Your task to perform on an android device: add a contact in the contacts app Image 0: 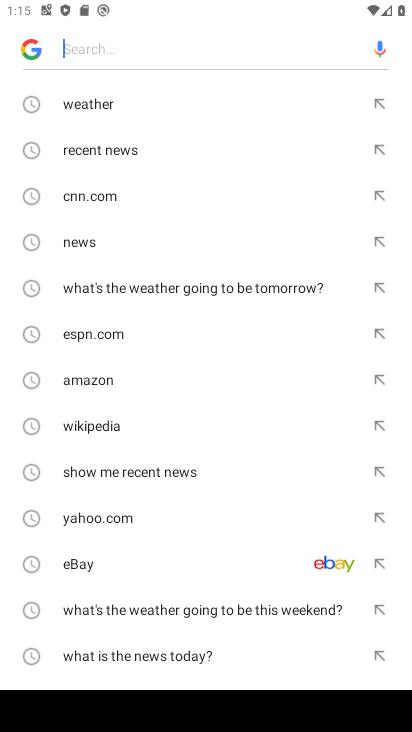
Step 0: drag from (234, 562) to (150, 207)
Your task to perform on an android device: add a contact in the contacts app Image 1: 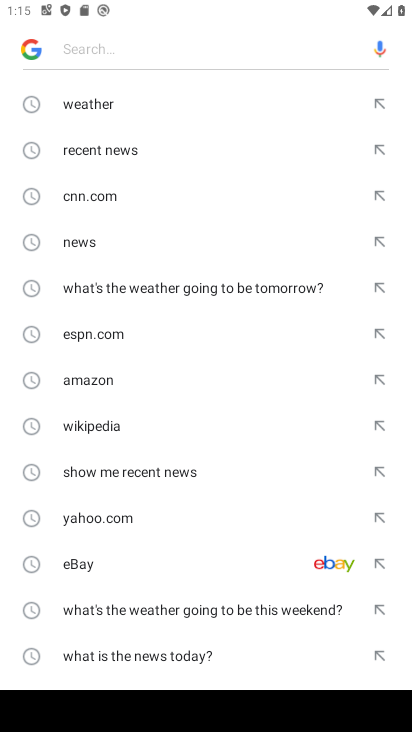
Step 1: press back button
Your task to perform on an android device: add a contact in the contacts app Image 2: 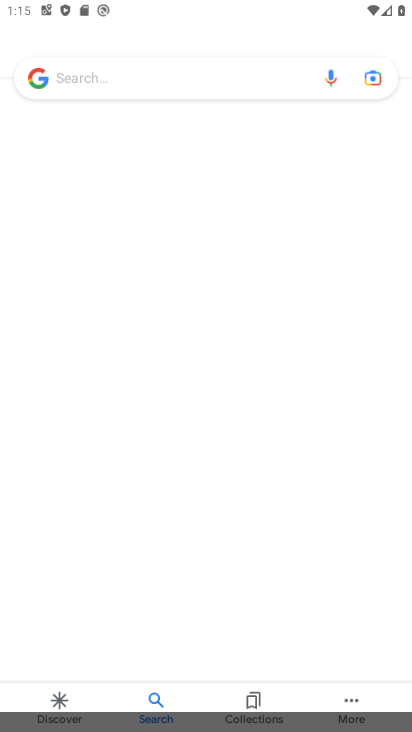
Step 2: press back button
Your task to perform on an android device: add a contact in the contacts app Image 3: 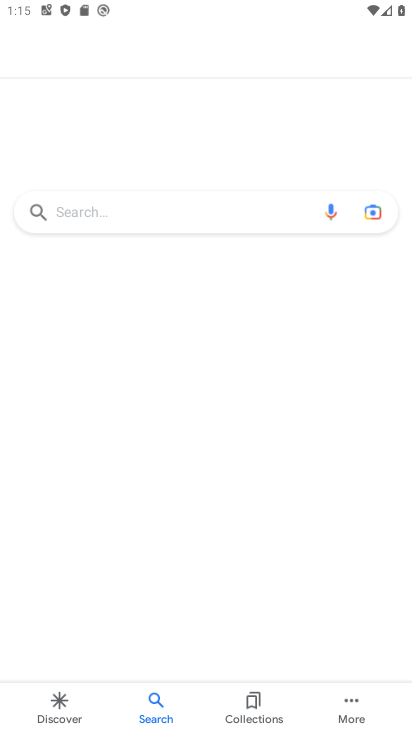
Step 3: press back button
Your task to perform on an android device: add a contact in the contacts app Image 4: 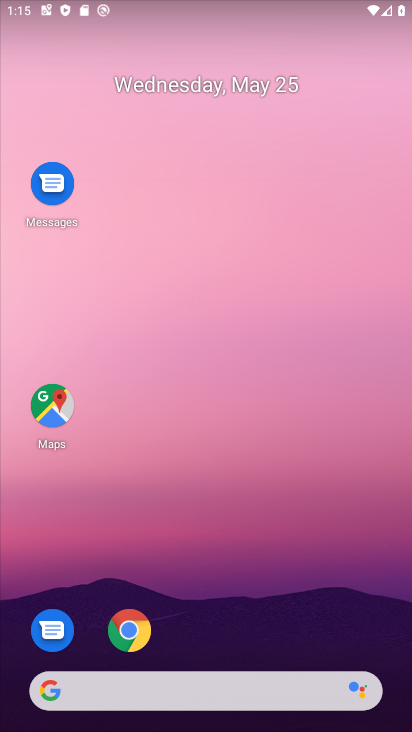
Step 4: drag from (306, 578) to (157, 61)
Your task to perform on an android device: add a contact in the contacts app Image 5: 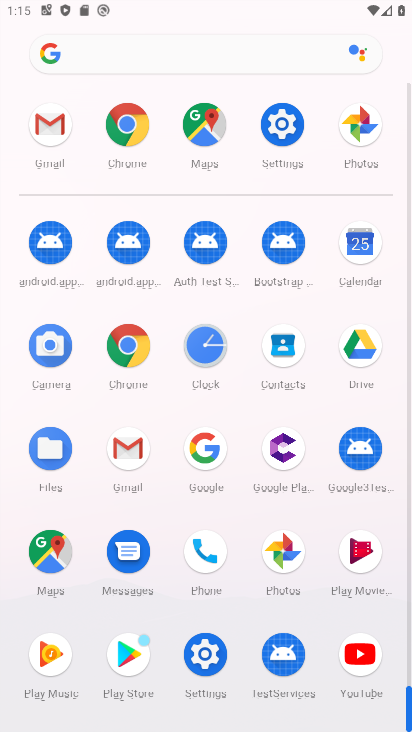
Step 5: click (291, 347)
Your task to perform on an android device: add a contact in the contacts app Image 6: 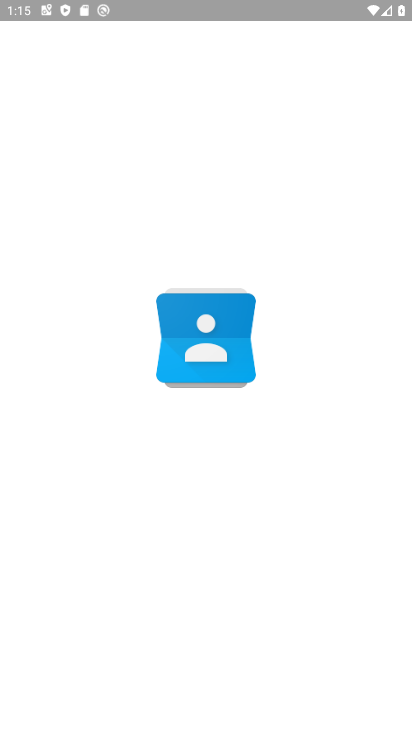
Step 6: click (290, 348)
Your task to perform on an android device: add a contact in the contacts app Image 7: 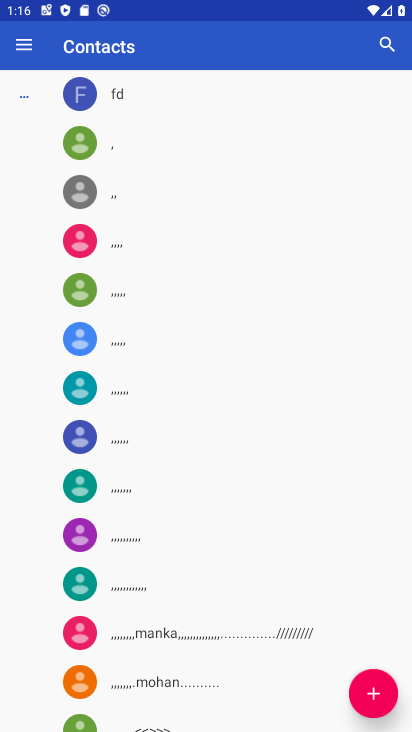
Step 7: click (369, 683)
Your task to perform on an android device: add a contact in the contacts app Image 8: 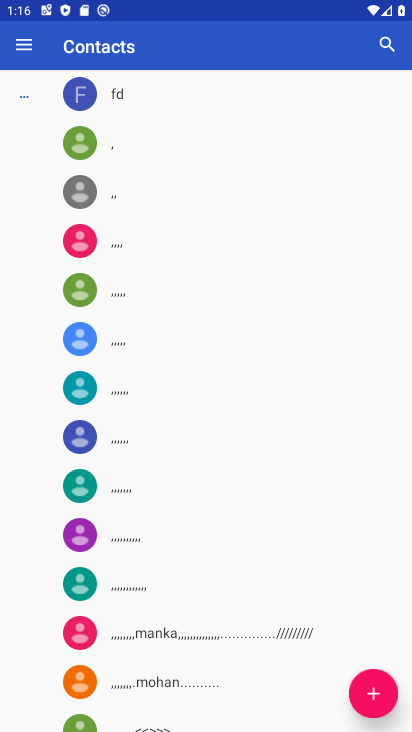
Step 8: click (369, 683)
Your task to perform on an android device: add a contact in the contacts app Image 9: 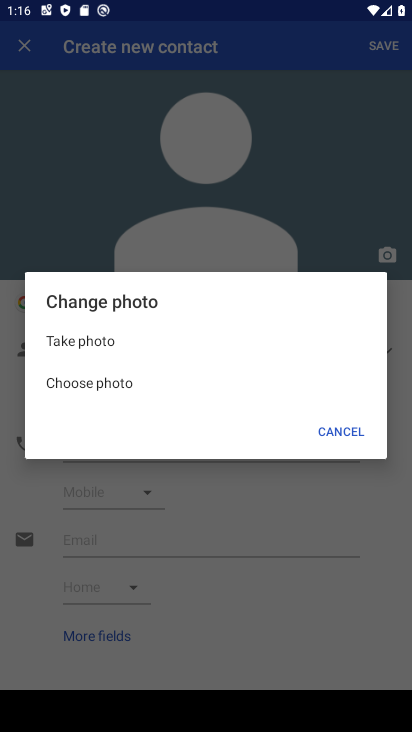
Step 9: click (335, 427)
Your task to perform on an android device: add a contact in the contacts app Image 10: 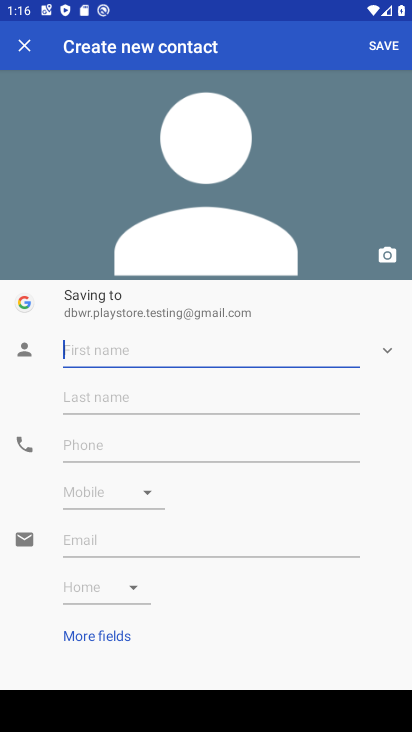
Step 10: type "kjhjvvkjhvjhdiv"
Your task to perform on an android device: add a contact in the contacts app Image 11: 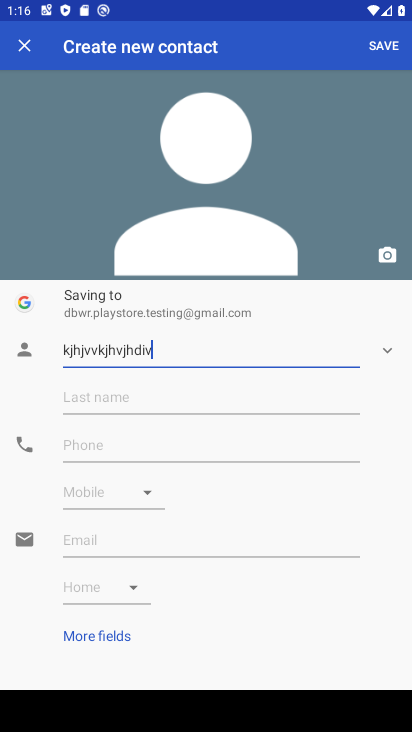
Step 11: click (72, 437)
Your task to perform on an android device: add a contact in the contacts app Image 12: 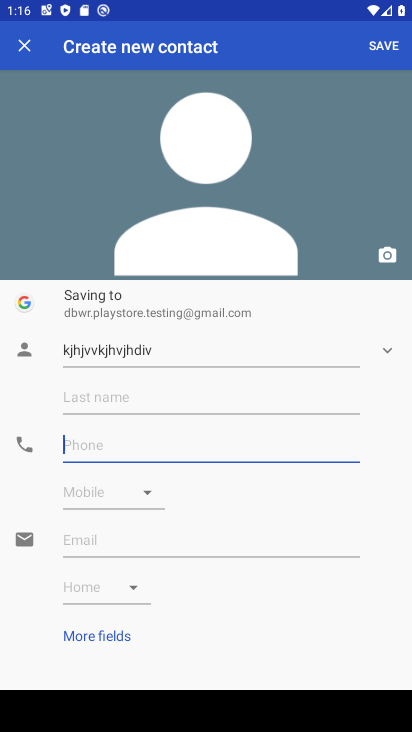
Step 12: click (72, 437)
Your task to perform on an android device: add a contact in the contacts app Image 13: 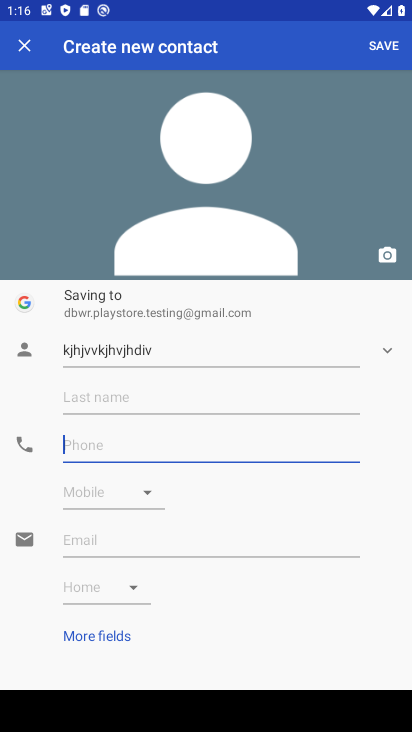
Step 13: type "77987349879879"
Your task to perform on an android device: add a contact in the contacts app Image 14: 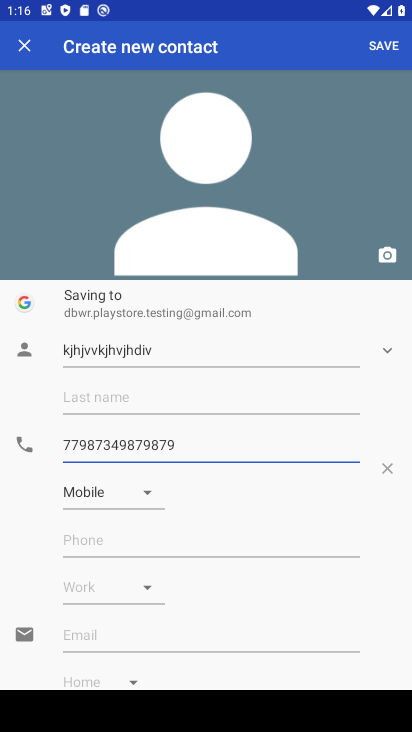
Step 14: click (383, 40)
Your task to perform on an android device: add a contact in the contacts app Image 15: 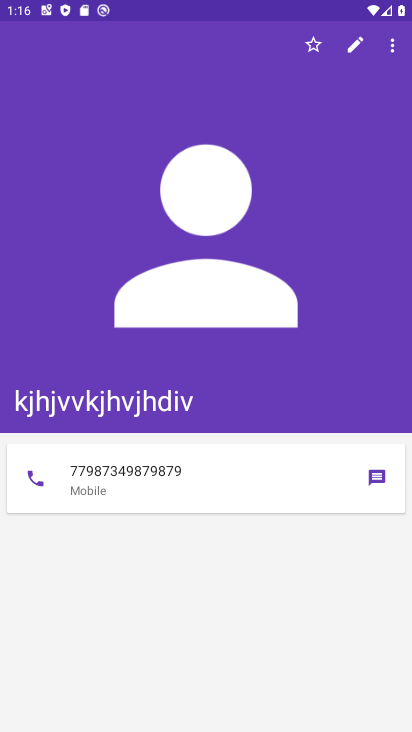
Step 15: task complete